Your task to perform on an android device: turn on bluetooth scan Image 0: 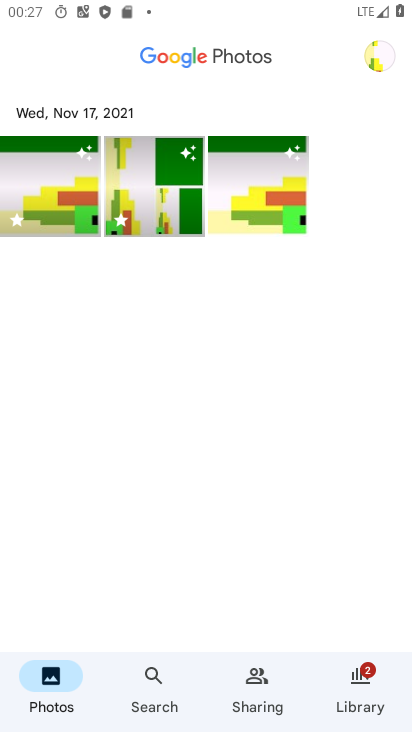
Step 0: press home button
Your task to perform on an android device: turn on bluetooth scan Image 1: 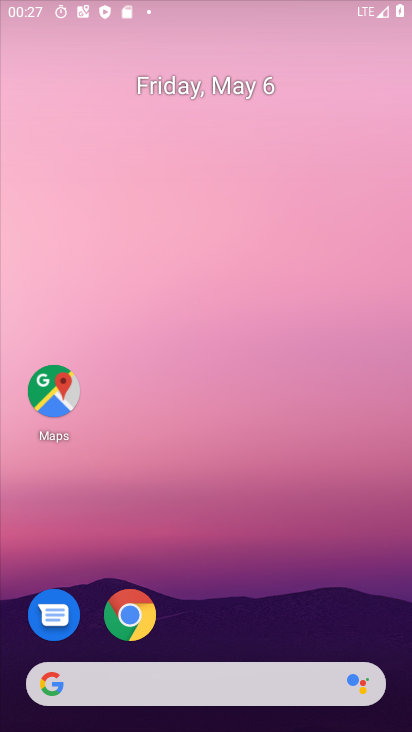
Step 1: drag from (240, 560) to (254, 6)
Your task to perform on an android device: turn on bluetooth scan Image 2: 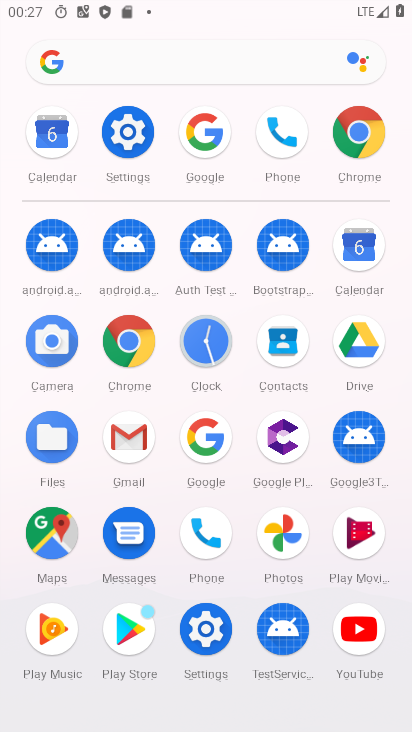
Step 2: click (127, 134)
Your task to perform on an android device: turn on bluetooth scan Image 3: 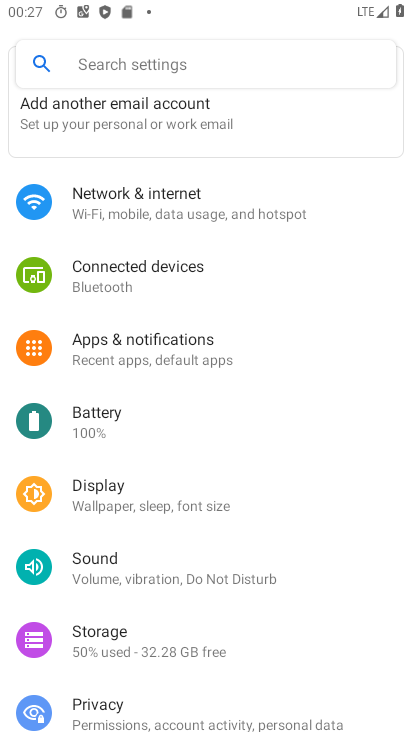
Step 3: drag from (155, 628) to (209, 146)
Your task to perform on an android device: turn on bluetooth scan Image 4: 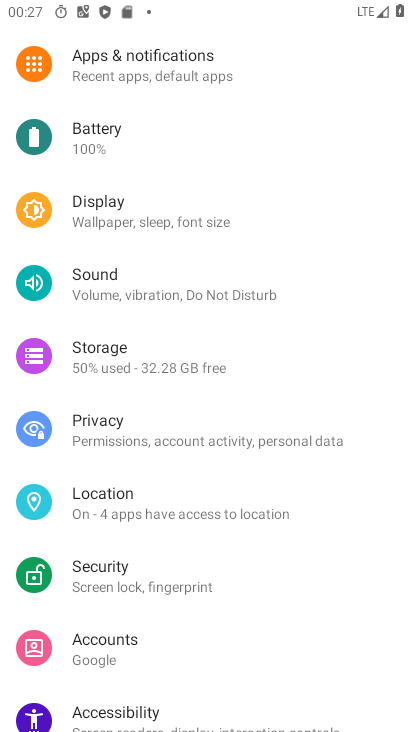
Step 4: click (67, 495)
Your task to perform on an android device: turn on bluetooth scan Image 5: 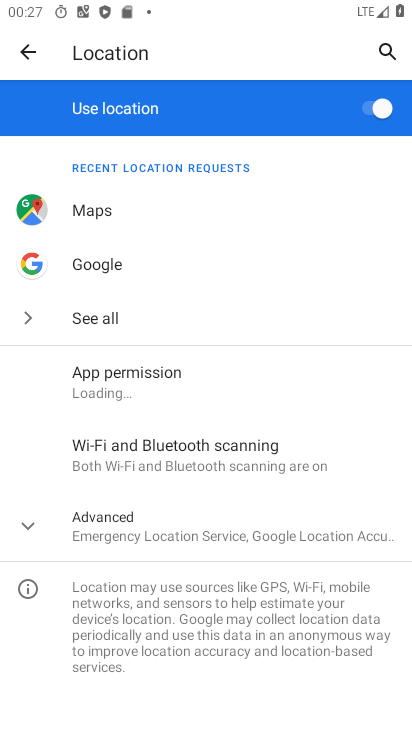
Step 5: click (138, 534)
Your task to perform on an android device: turn on bluetooth scan Image 6: 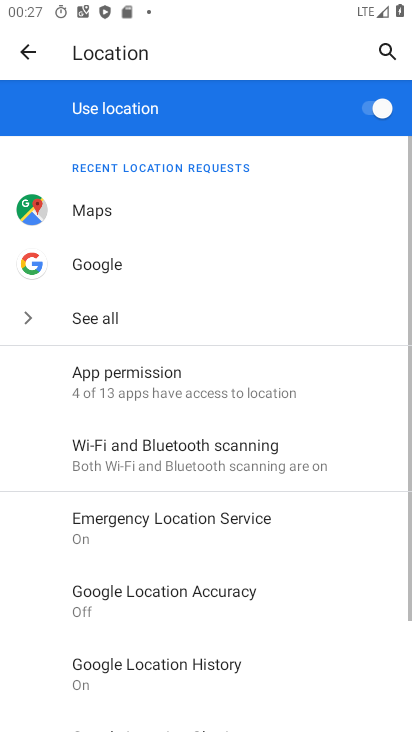
Step 6: click (132, 467)
Your task to perform on an android device: turn on bluetooth scan Image 7: 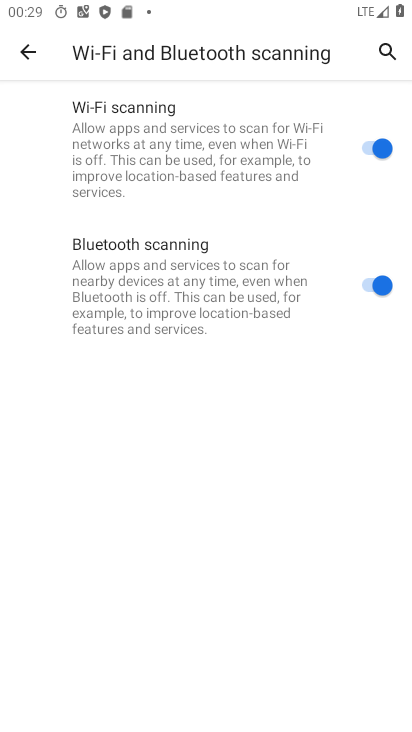
Step 7: task complete